Your task to perform on an android device: toggle javascript in the chrome app Image 0: 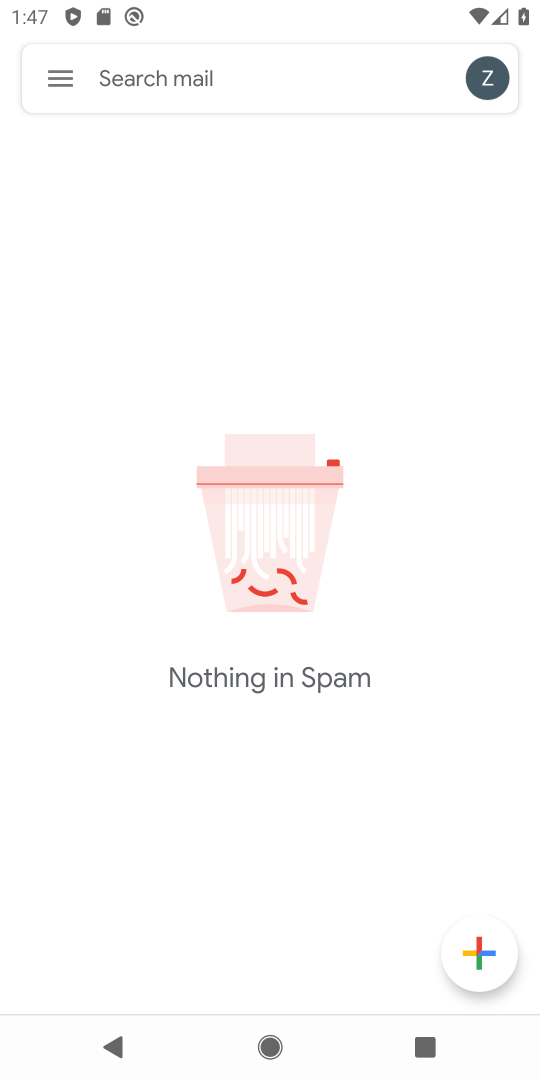
Step 0: press home button
Your task to perform on an android device: toggle javascript in the chrome app Image 1: 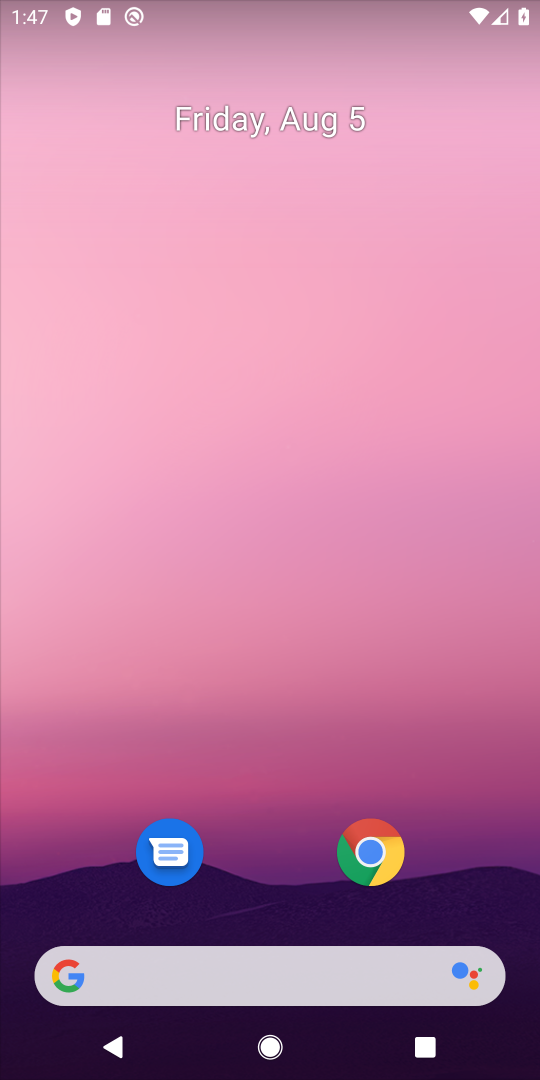
Step 1: click (367, 846)
Your task to perform on an android device: toggle javascript in the chrome app Image 2: 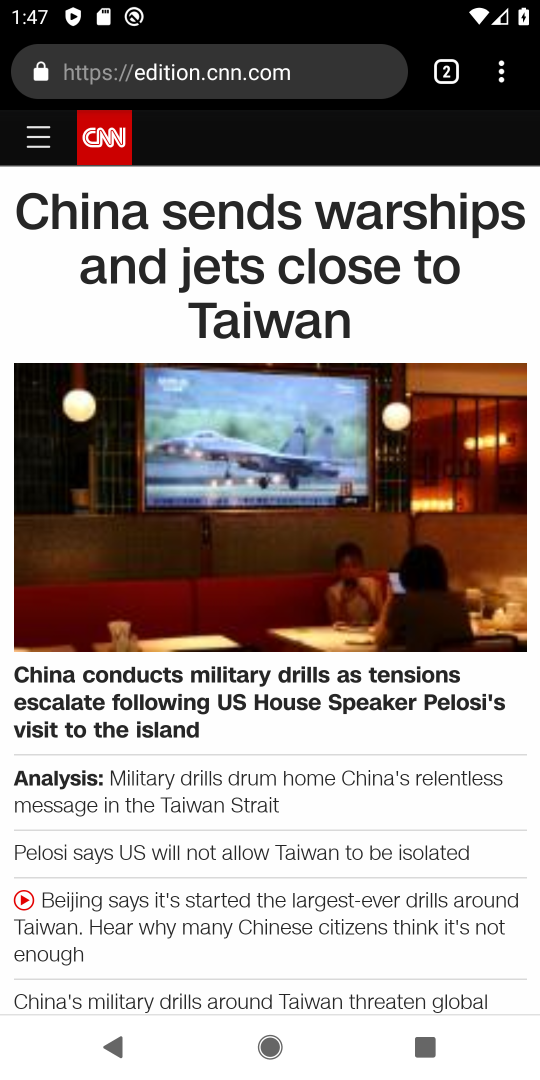
Step 2: click (510, 73)
Your task to perform on an android device: toggle javascript in the chrome app Image 3: 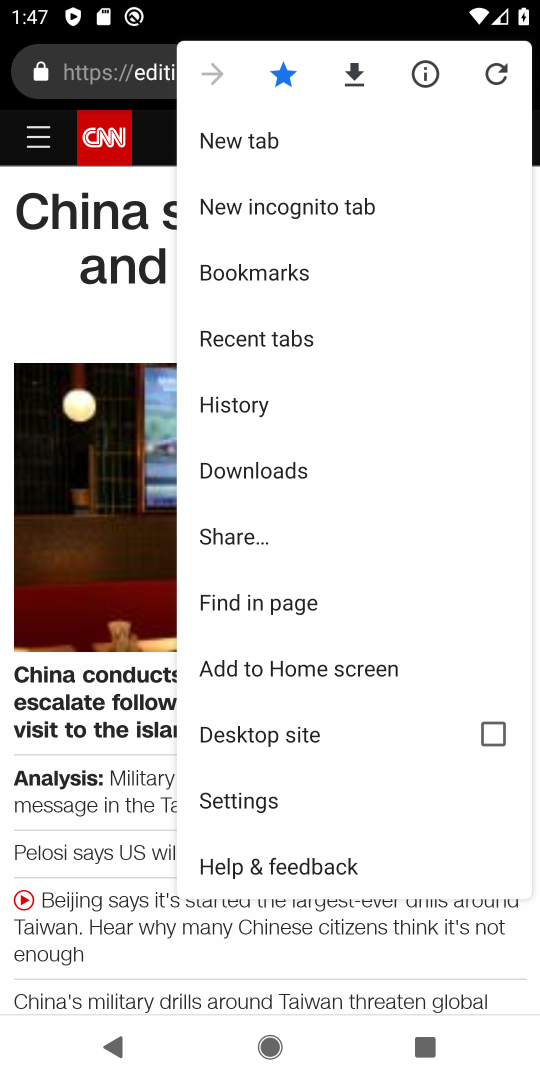
Step 3: click (255, 806)
Your task to perform on an android device: toggle javascript in the chrome app Image 4: 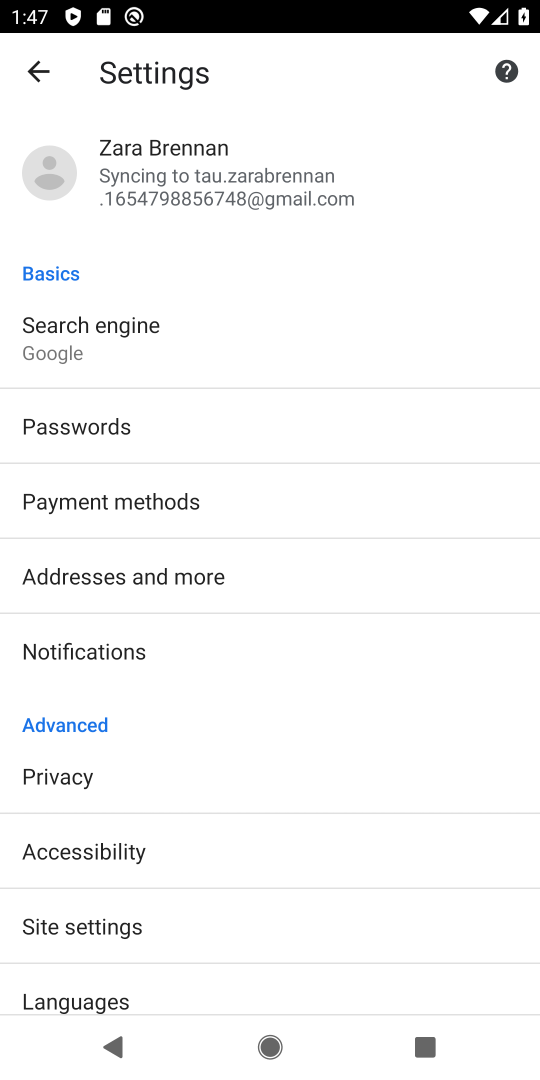
Step 4: click (91, 921)
Your task to perform on an android device: toggle javascript in the chrome app Image 5: 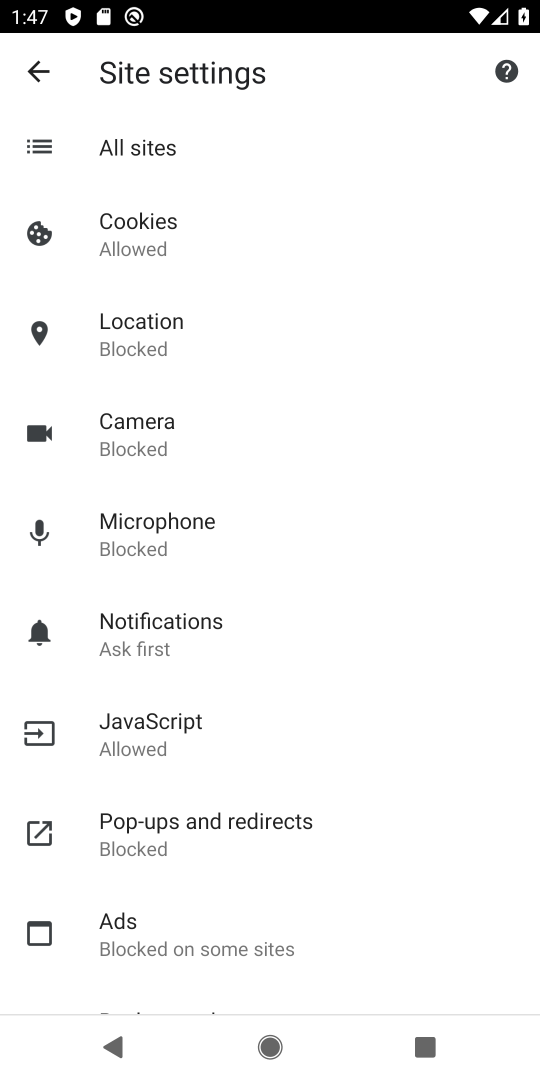
Step 5: click (140, 711)
Your task to perform on an android device: toggle javascript in the chrome app Image 6: 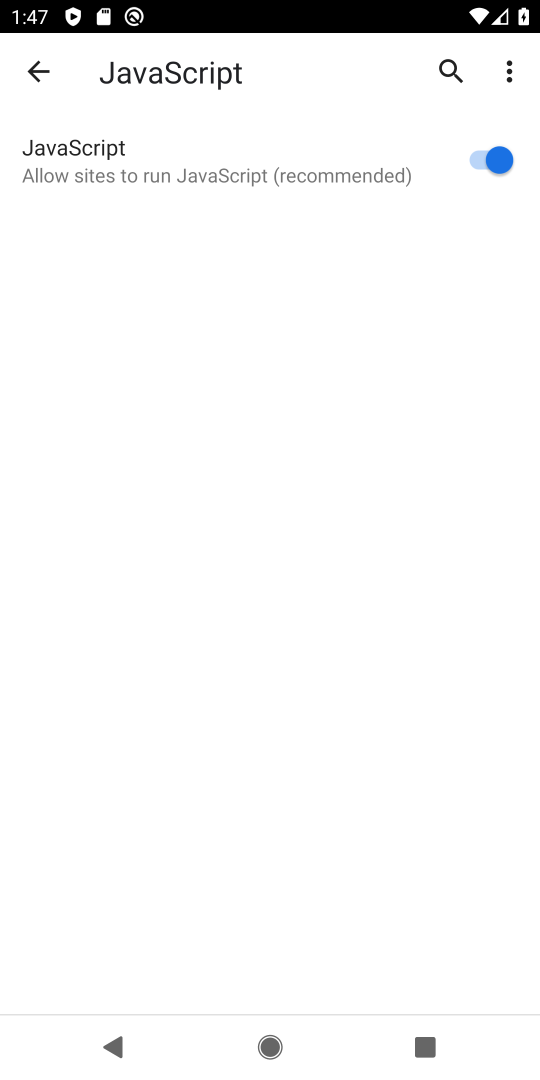
Step 6: click (491, 147)
Your task to perform on an android device: toggle javascript in the chrome app Image 7: 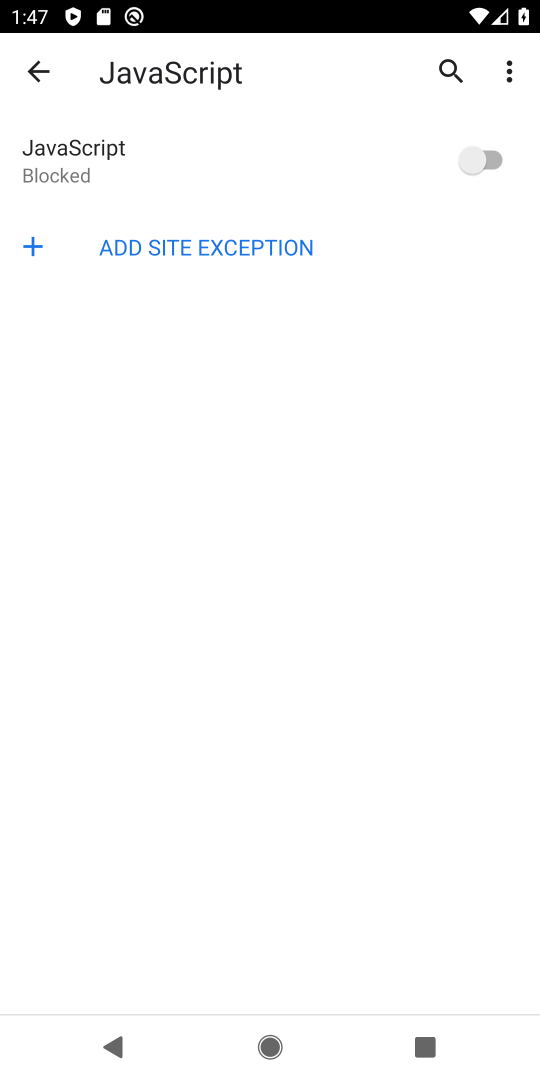
Step 7: task complete